Your task to perform on an android device: change keyboard looks Image 0: 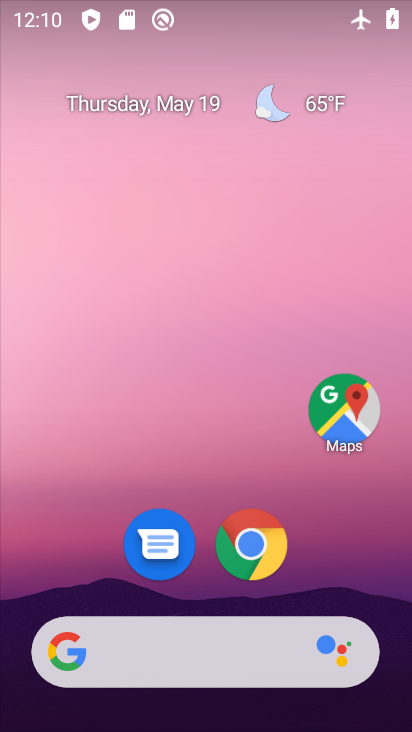
Step 0: drag from (349, 562) to (368, 238)
Your task to perform on an android device: change keyboard looks Image 1: 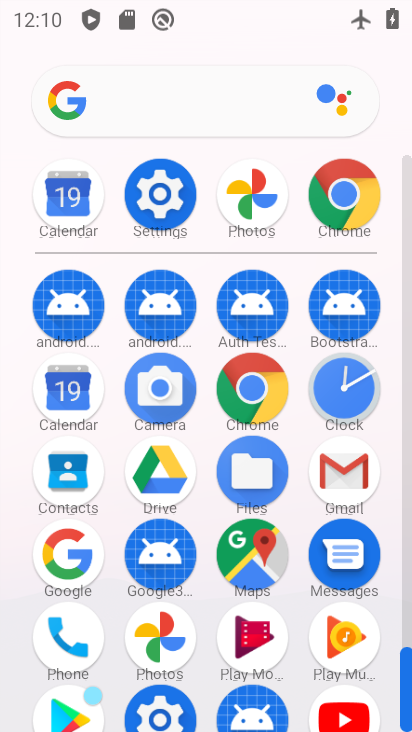
Step 1: click (167, 220)
Your task to perform on an android device: change keyboard looks Image 2: 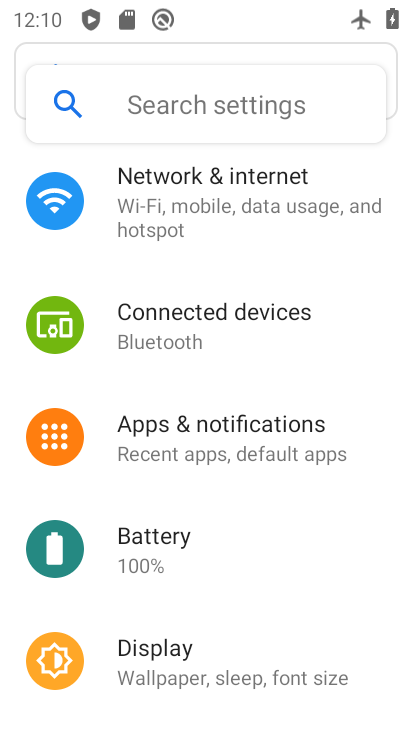
Step 2: drag from (325, 570) to (348, 431)
Your task to perform on an android device: change keyboard looks Image 3: 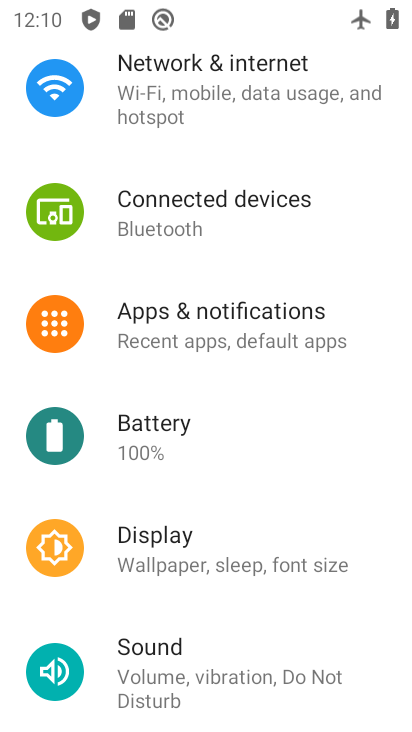
Step 3: drag from (365, 618) to (381, 449)
Your task to perform on an android device: change keyboard looks Image 4: 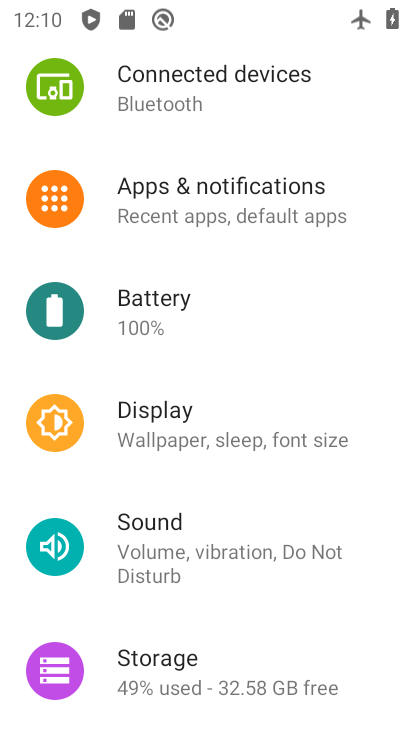
Step 4: drag from (345, 631) to (353, 439)
Your task to perform on an android device: change keyboard looks Image 5: 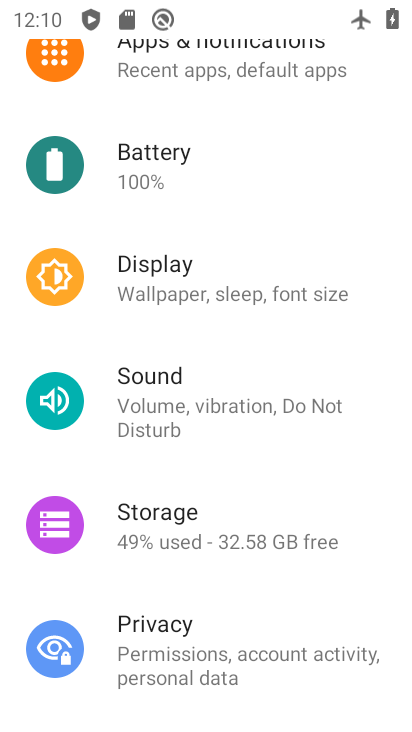
Step 5: drag from (331, 684) to (331, 550)
Your task to perform on an android device: change keyboard looks Image 6: 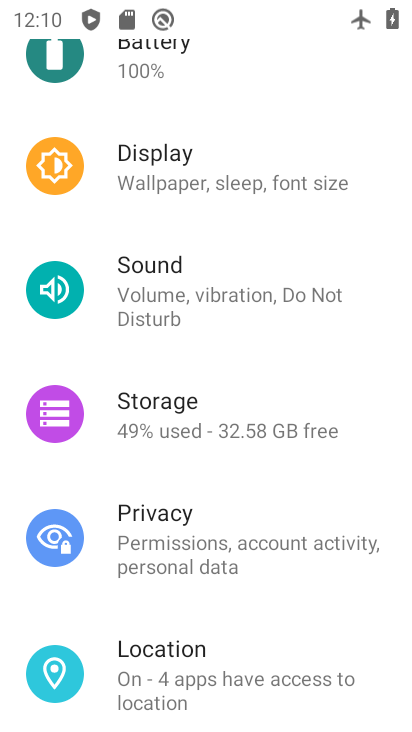
Step 6: drag from (329, 677) to (341, 504)
Your task to perform on an android device: change keyboard looks Image 7: 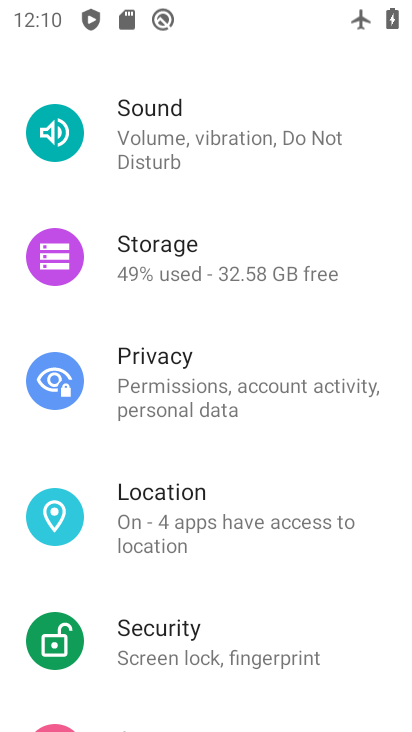
Step 7: drag from (349, 661) to (358, 510)
Your task to perform on an android device: change keyboard looks Image 8: 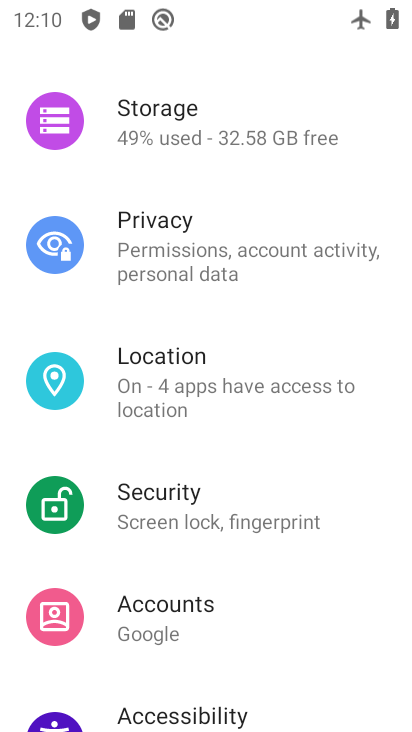
Step 8: drag from (347, 682) to (357, 520)
Your task to perform on an android device: change keyboard looks Image 9: 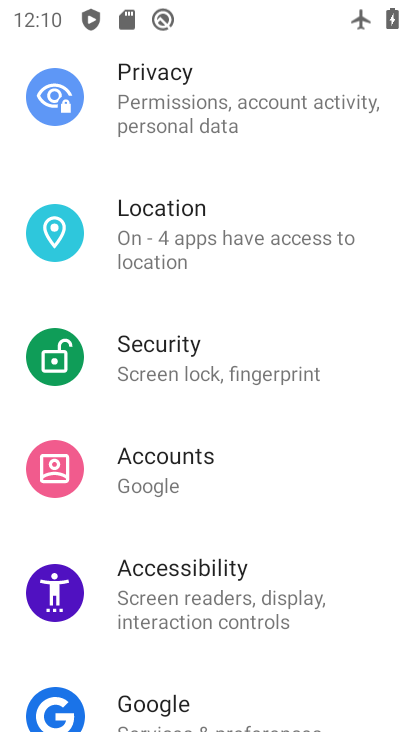
Step 9: drag from (337, 652) to (333, 516)
Your task to perform on an android device: change keyboard looks Image 10: 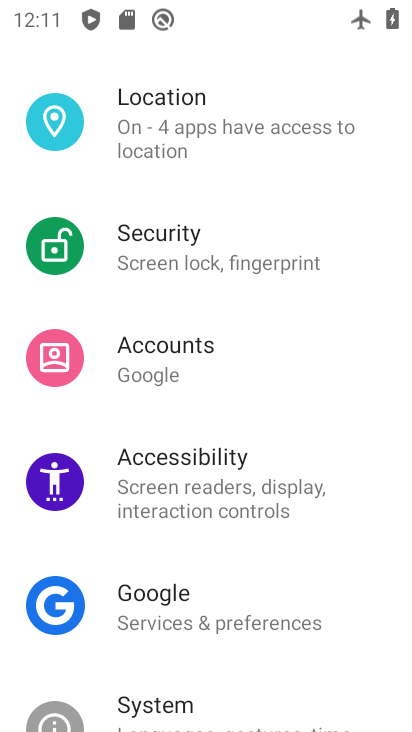
Step 10: drag from (309, 656) to (314, 505)
Your task to perform on an android device: change keyboard looks Image 11: 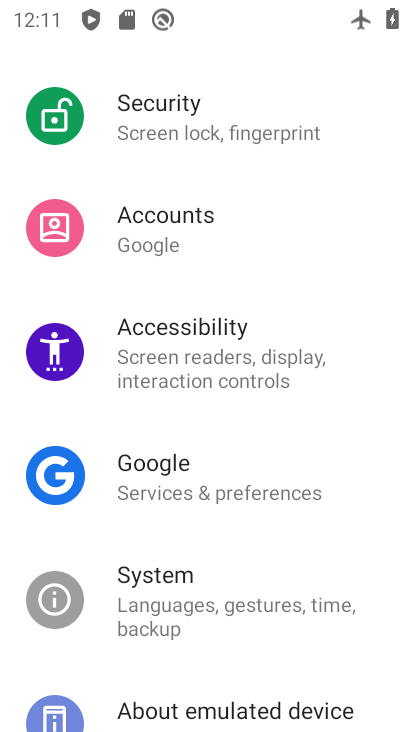
Step 11: click (267, 592)
Your task to perform on an android device: change keyboard looks Image 12: 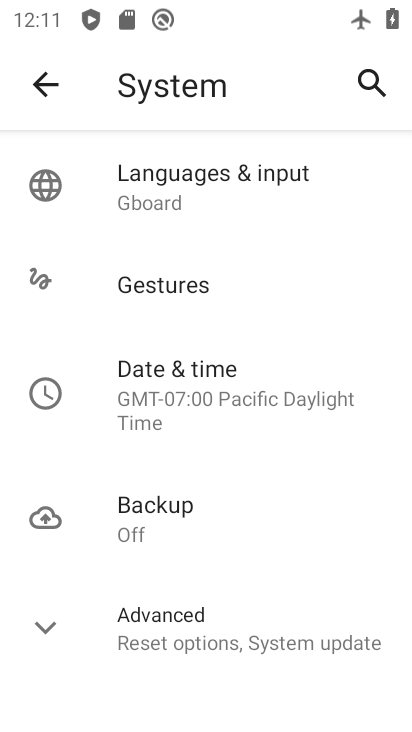
Step 12: click (195, 208)
Your task to perform on an android device: change keyboard looks Image 13: 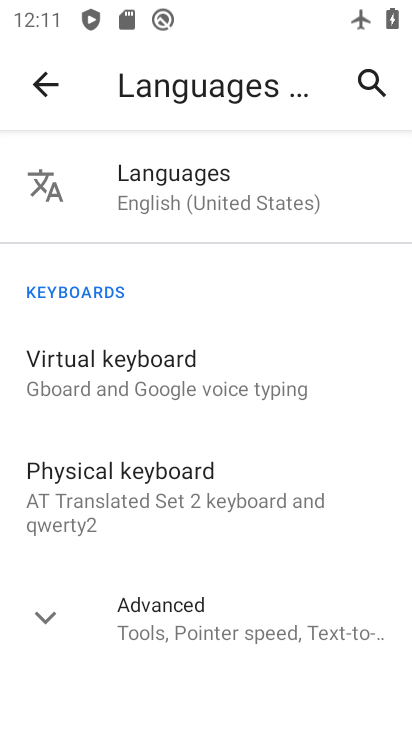
Step 13: click (218, 392)
Your task to perform on an android device: change keyboard looks Image 14: 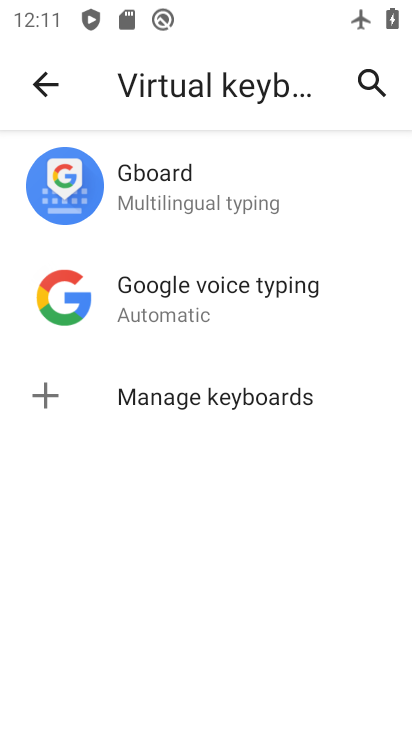
Step 14: click (223, 199)
Your task to perform on an android device: change keyboard looks Image 15: 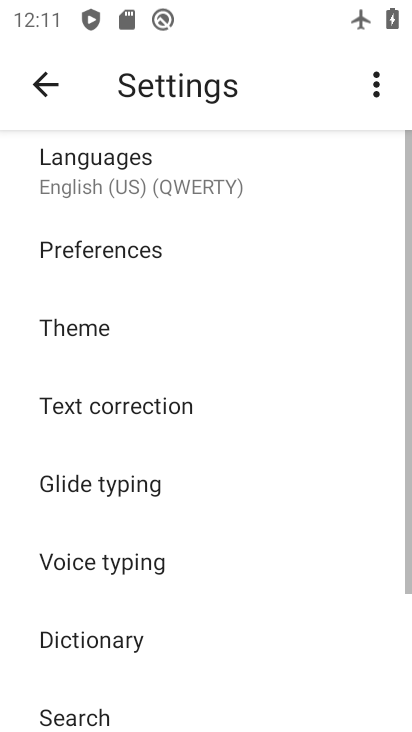
Step 15: click (160, 358)
Your task to perform on an android device: change keyboard looks Image 16: 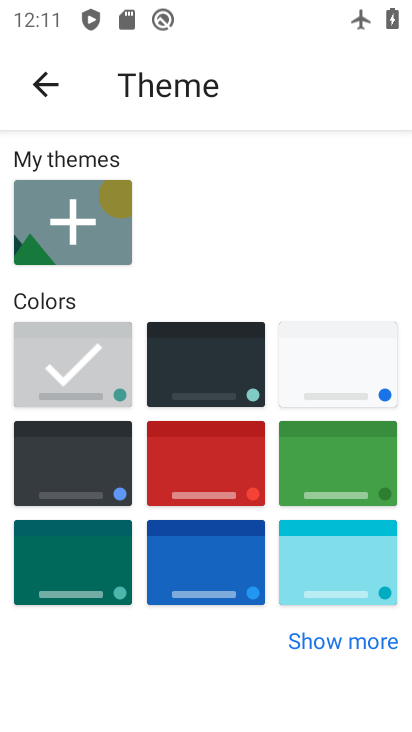
Step 16: click (302, 454)
Your task to perform on an android device: change keyboard looks Image 17: 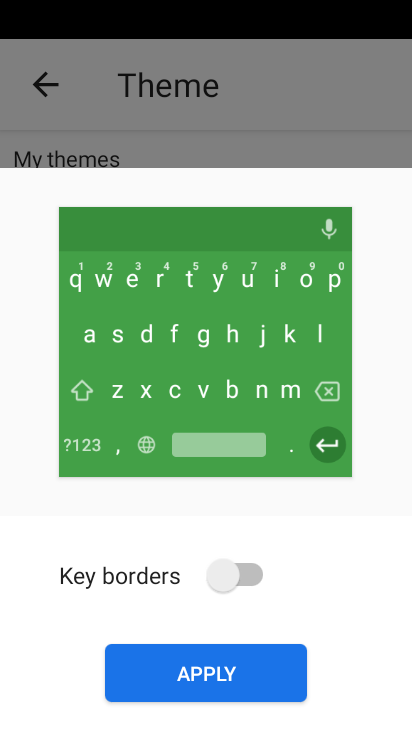
Step 17: click (262, 677)
Your task to perform on an android device: change keyboard looks Image 18: 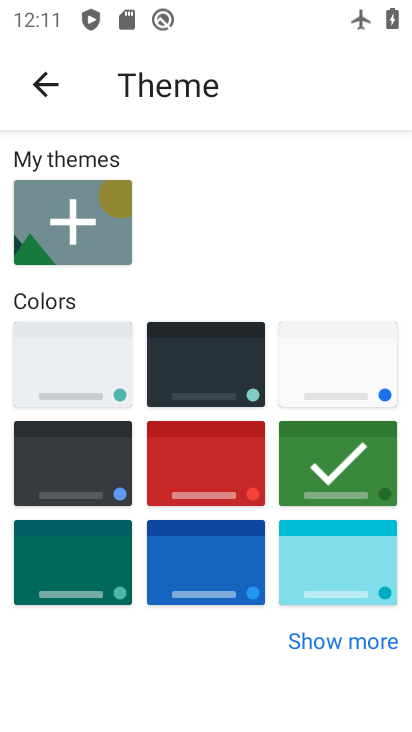
Step 18: task complete